Your task to perform on an android device: toggle wifi Image 0: 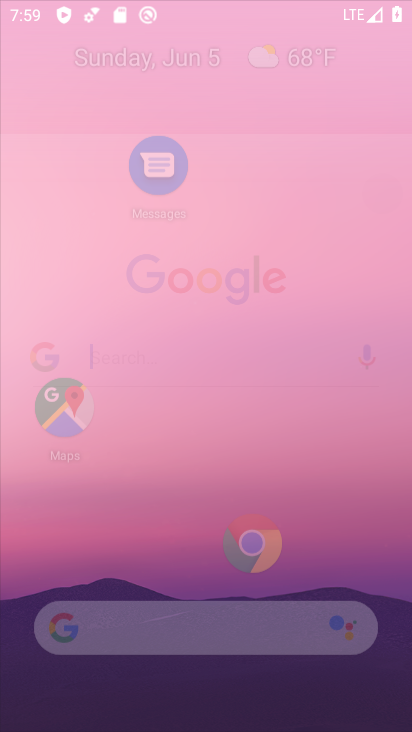
Step 0: press home button
Your task to perform on an android device: toggle wifi Image 1: 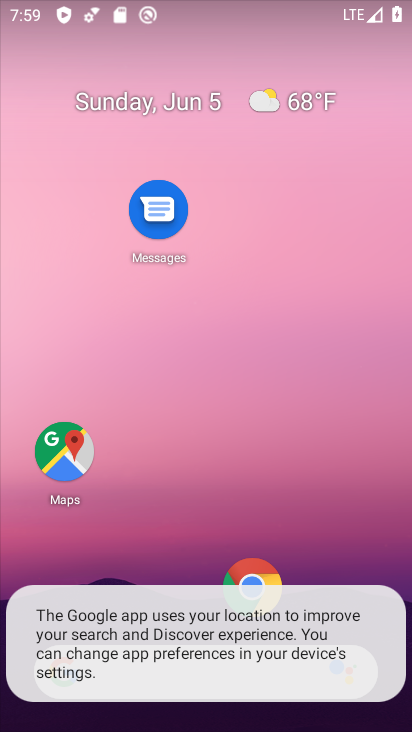
Step 1: drag from (188, 14) to (225, 601)
Your task to perform on an android device: toggle wifi Image 2: 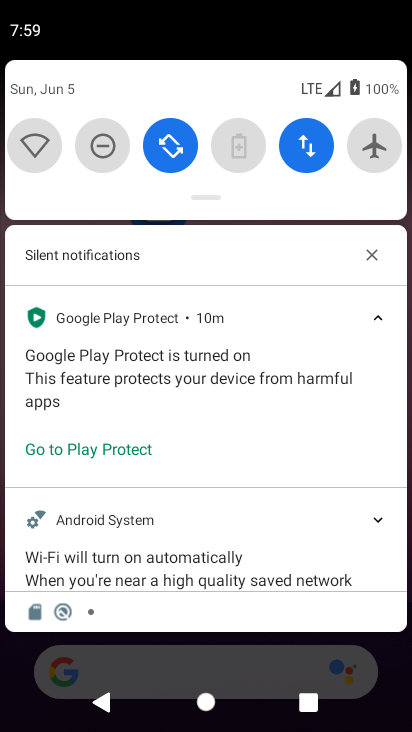
Step 2: click (42, 151)
Your task to perform on an android device: toggle wifi Image 3: 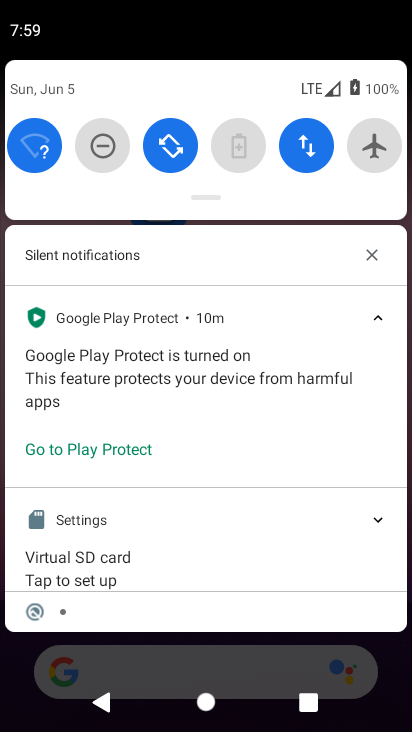
Step 3: task complete